Your task to perform on an android device: change timer sound Image 0: 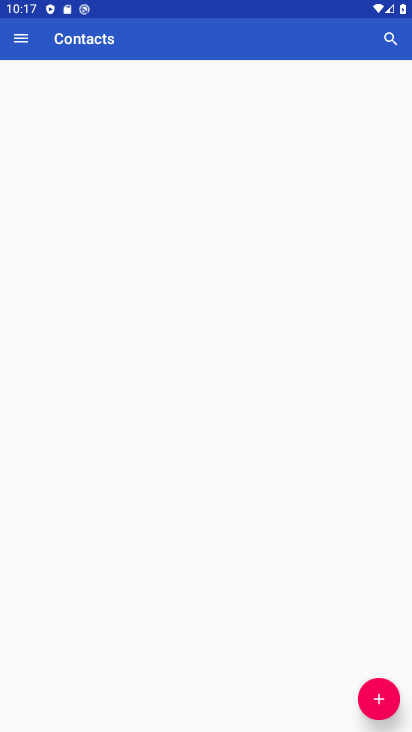
Step 0: drag from (286, 699) to (235, 124)
Your task to perform on an android device: change timer sound Image 1: 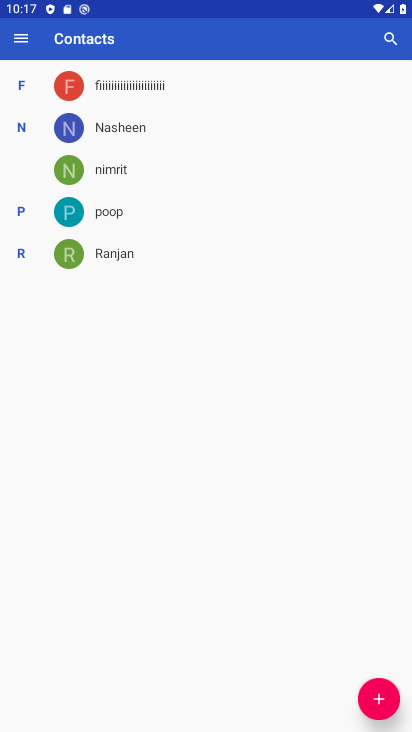
Step 1: press back button
Your task to perform on an android device: change timer sound Image 2: 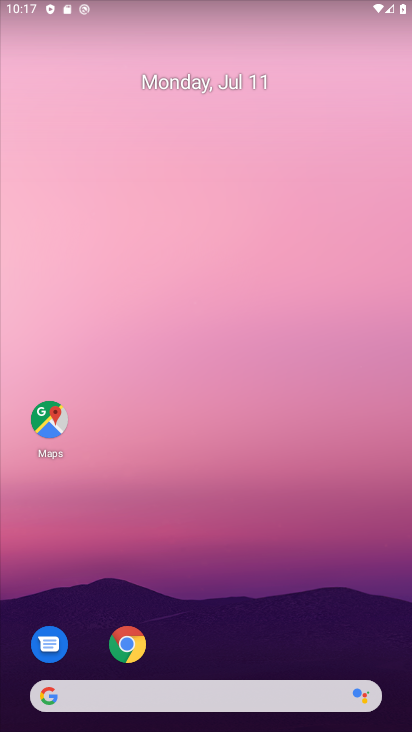
Step 2: drag from (225, 695) to (114, 222)
Your task to perform on an android device: change timer sound Image 3: 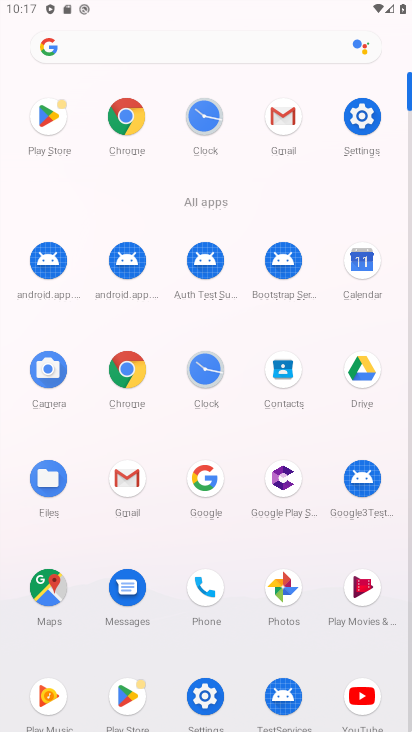
Step 3: click (200, 371)
Your task to perform on an android device: change timer sound Image 4: 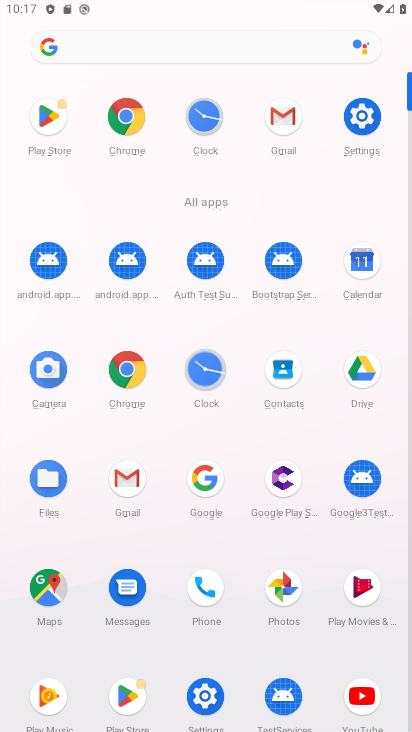
Step 4: click (198, 371)
Your task to perform on an android device: change timer sound Image 5: 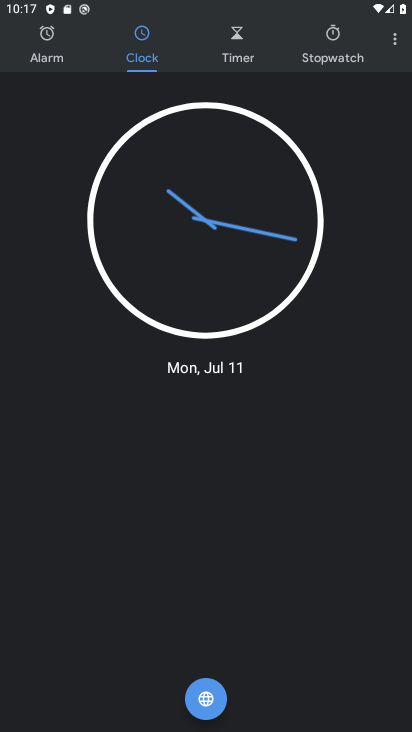
Step 5: click (398, 45)
Your task to perform on an android device: change timer sound Image 6: 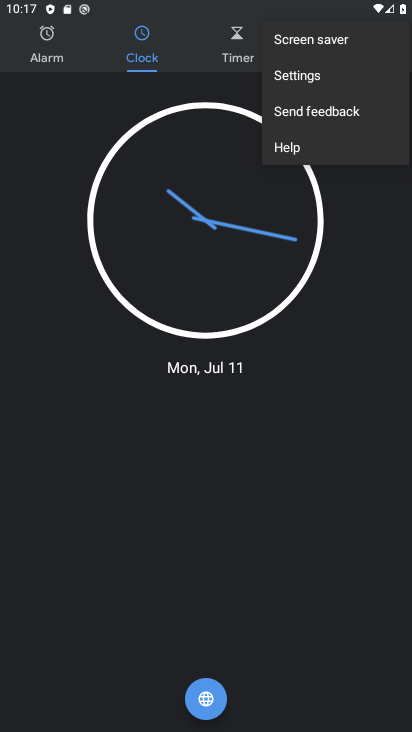
Step 6: click (298, 78)
Your task to perform on an android device: change timer sound Image 7: 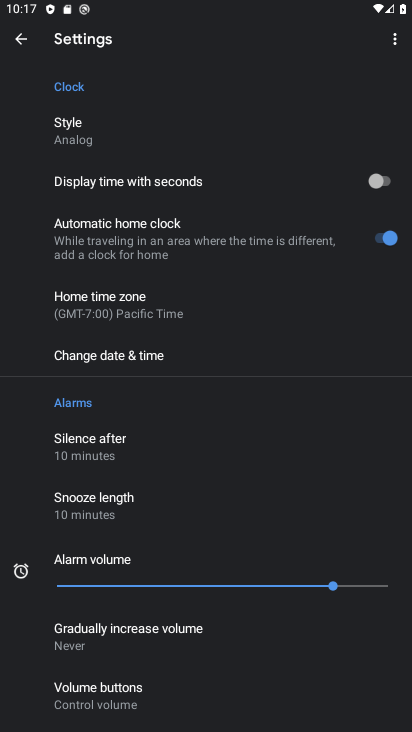
Step 7: drag from (145, 591) to (114, 173)
Your task to perform on an android device: change timer sound Image 8: 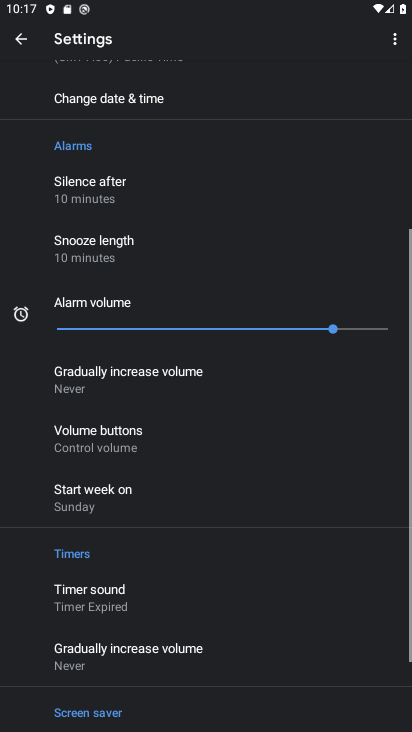
Step 8: drag from (154, 477) to (121, 242)
Your task to perform on an android device: change timer sound Image 9: 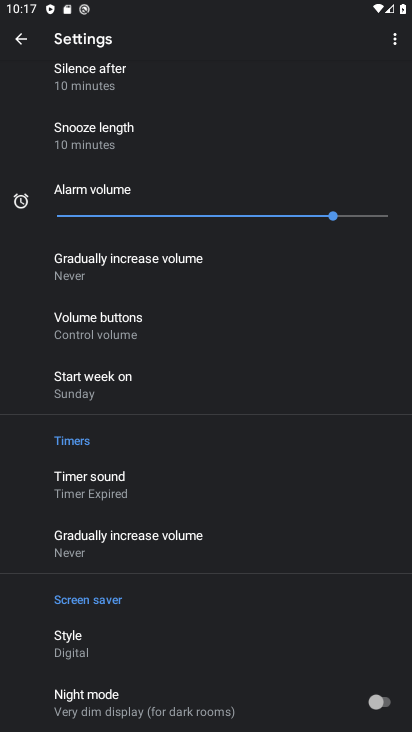
Step 9: click (98, 479)
Your task to perform on an android device: change timer sound Image 10: 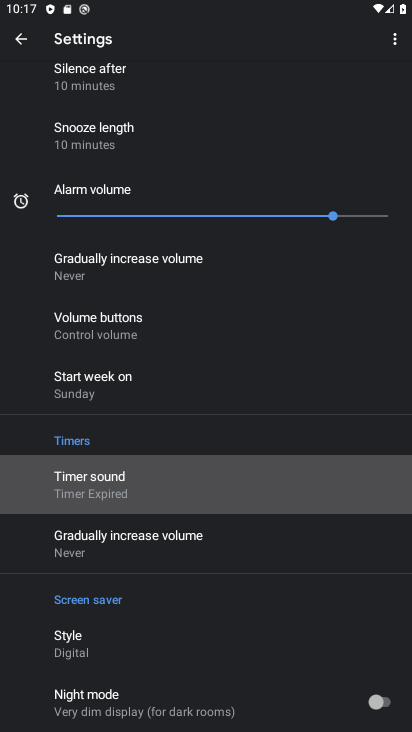
Step 10: click (98, 479)
Your task to perform on an android device: change timer sound Image 11: 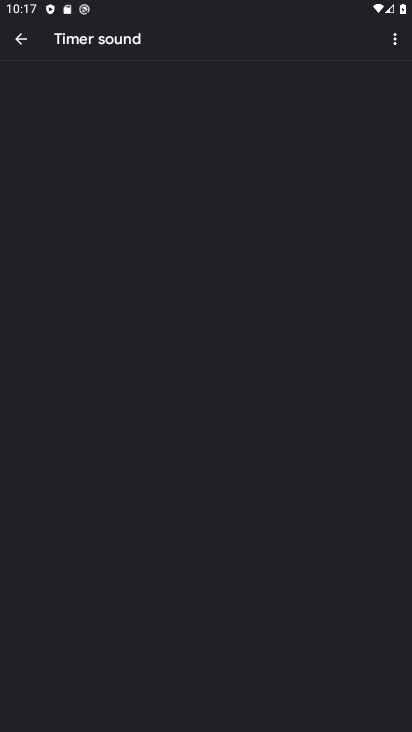
Step 11: click (98, 479)
Your task to perform on an android device: change timer sound Image 12: 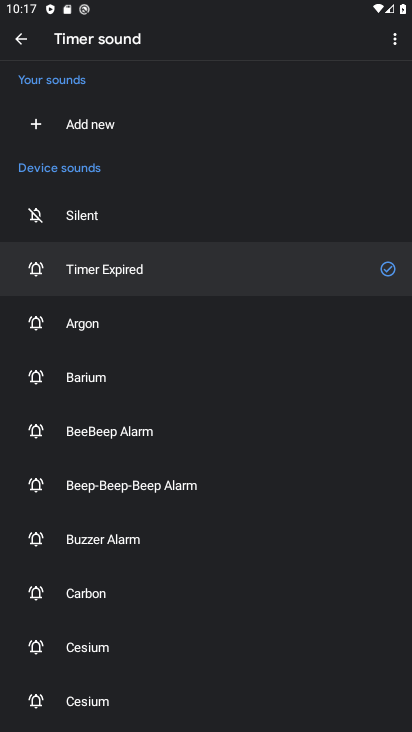
Step 12: click (95, 426)
Your task to perform on an android device: change timer sound Image 13: 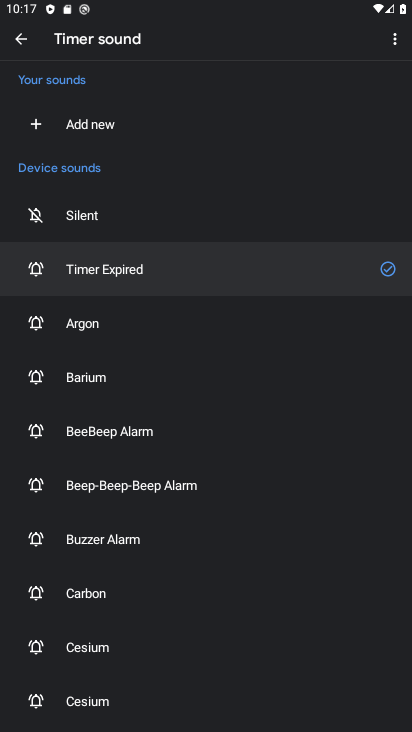
Step 13: click (94, 425)
Your task to perform on an android device: change timer sound Image 14: 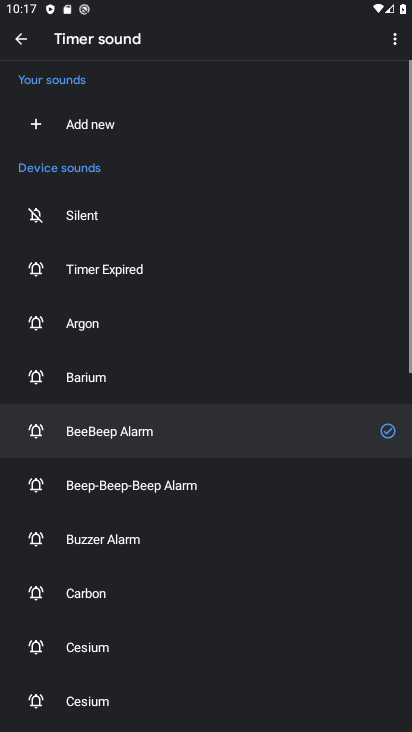
Step 14: task complete